Your task to perform on an android device: set default search engine in the chrome app Image 0: 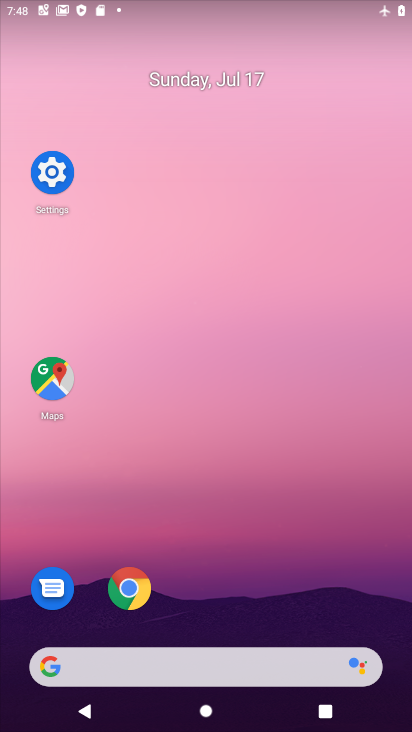
Step 0: click (123, 586)
Your task to perform on an android device: set default search engine in the chrome app Image 1: 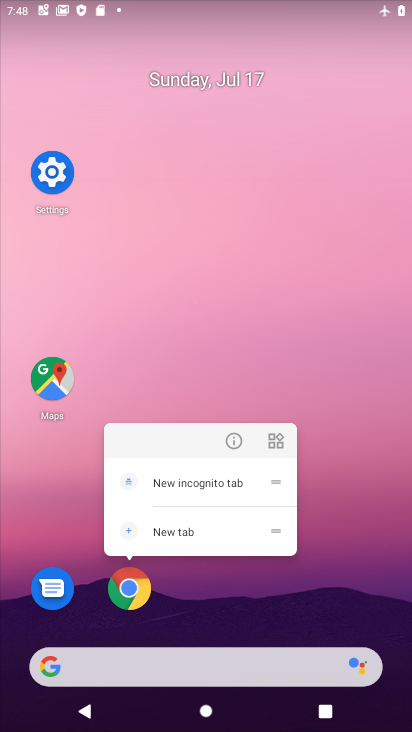
Step 1: click (123, 586)
Your task to perform on an android device: set default search engine in the chrome app Image 2: 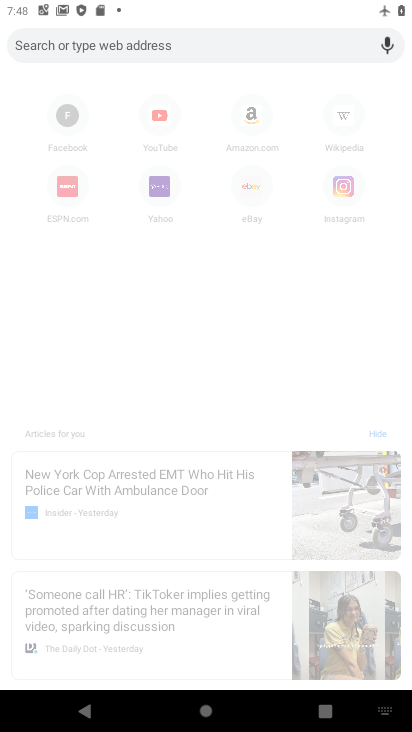
Step 2: click (386, 53)
Your task to perform on an android device: set default search engine in the chrome app Image 3: 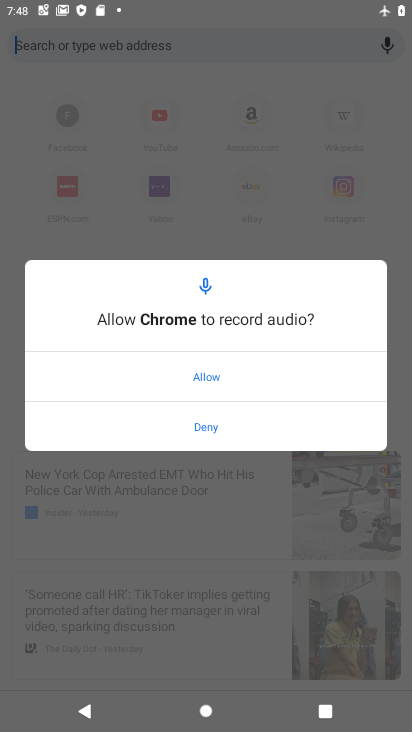
Step 3: click (229, 386)
Your task to perform on an android device: set default search engine in the chrome app Image 4: 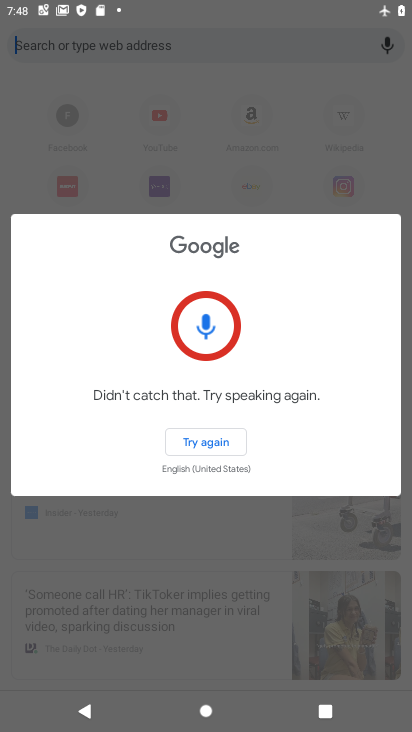
Step 4: press home button
Your task to perform on an android device: set default search engine in the chrome app Image 5: 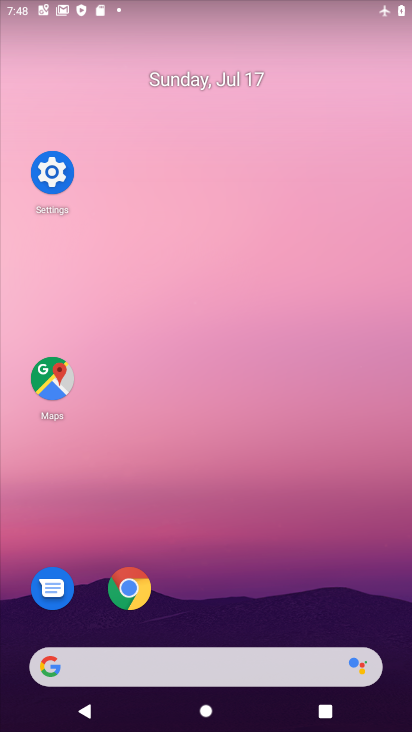
Step 5: click (17, 173)
Your task to perform on an android device: set default search engine in the chrome app Image 6: 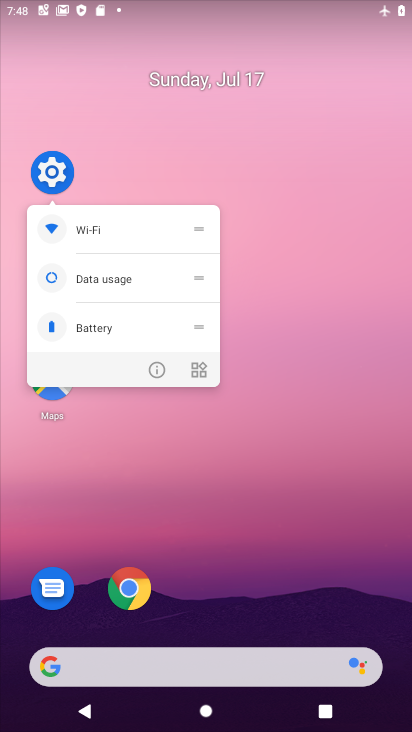
Step 6: click (38, 160)
Your task to perform on an android device: set default search engine in the chrome app Image 7: 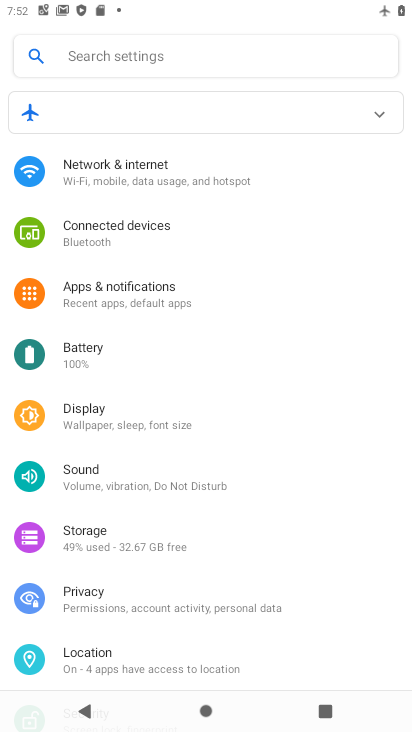
Step 7: press home button
Your task to perform on an android device: set default search engine in the chrome app Image 8: 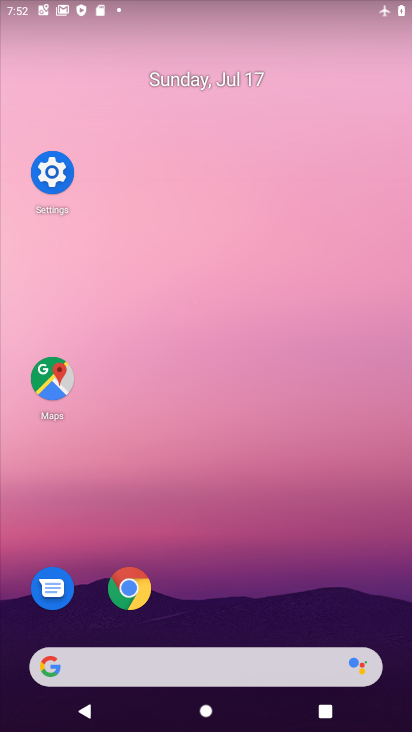
Step 8: click (124, 592)
Your task to perform on an android device: set default search engine in the chrome app Image 9: 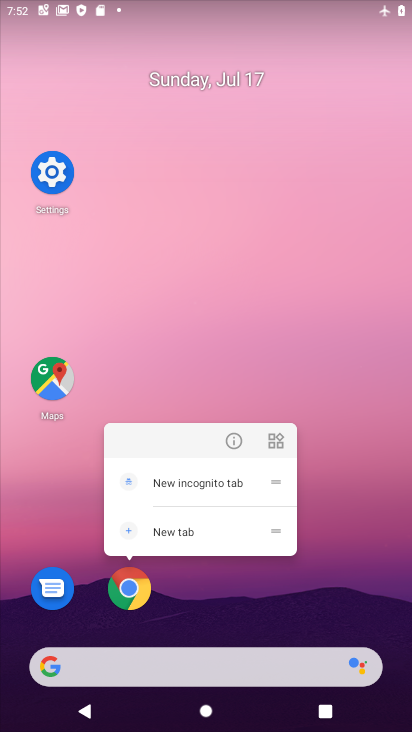
Step 9: click (124, 592)
Your task to perform on an android device: set default search engine in the chrome app Image 10: 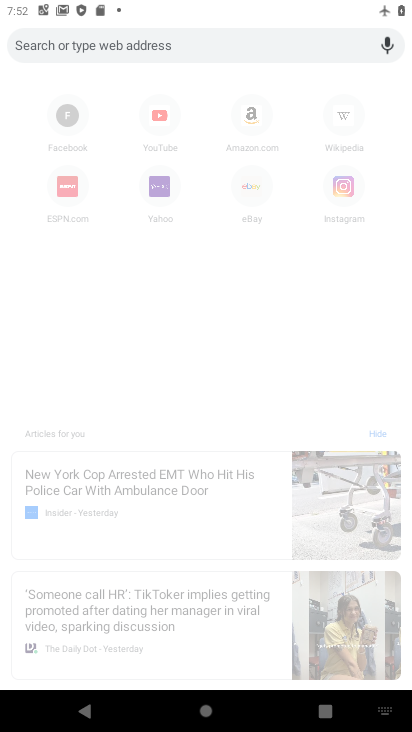
Step 10: press back button
Your task to perform on an android device: set default search engine in the chrome app Image 11: 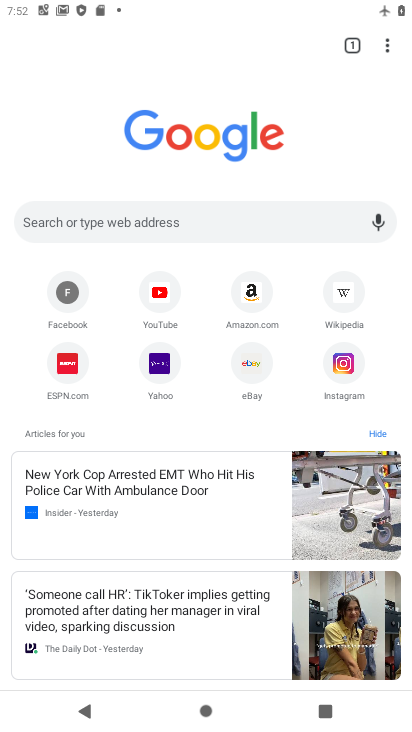
Step 11: click (386, 41)
Your task to perform on an android device: set default search engine in the chrome app Image 12: 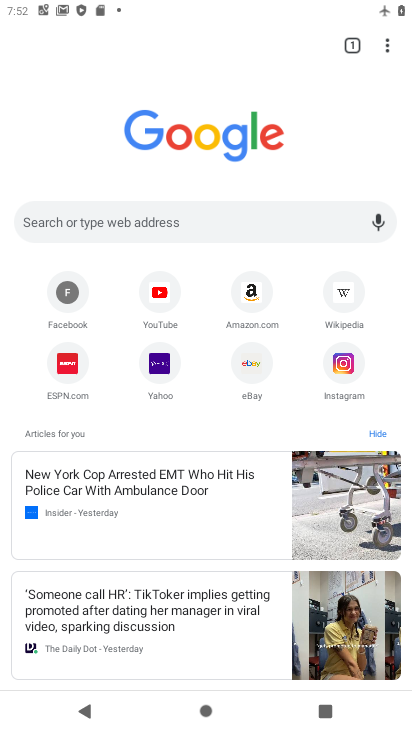
Step 12: click (383, 44)
Your task to perform on an android device: set default search engine in the chrome app Image 13: 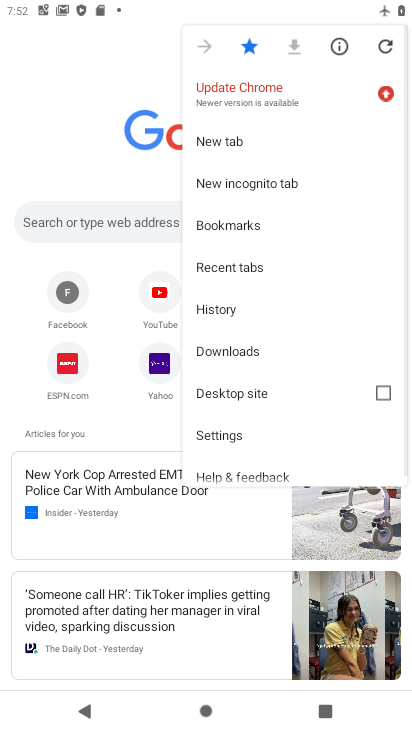
Step 13: click (266, 453)
Your task to perform on an android device: set default search engine in the chrome app Image 14: 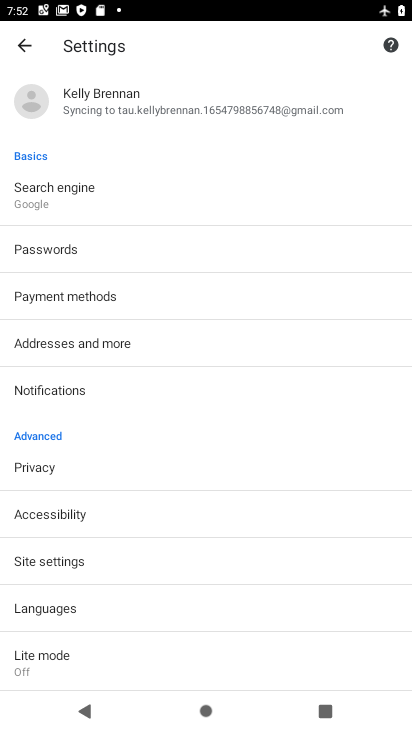
Step 14: click (171, 195)
Your task to perform on an android device: set default search engine in the chrome app Image 15: 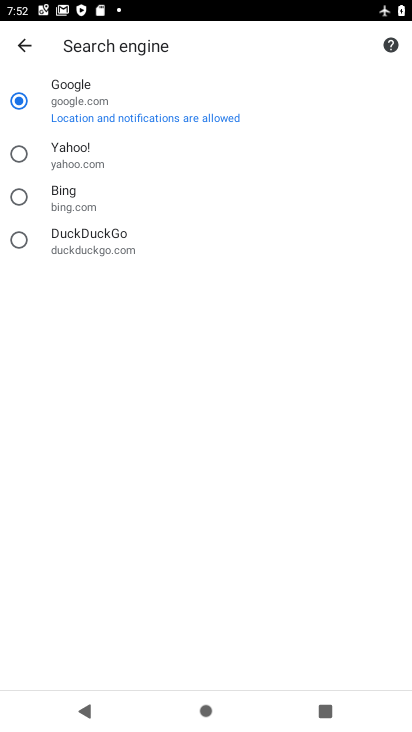
Step 15: task complete